Your task to perform on an android device: What's on the menu at Taco Bell? Image 0: 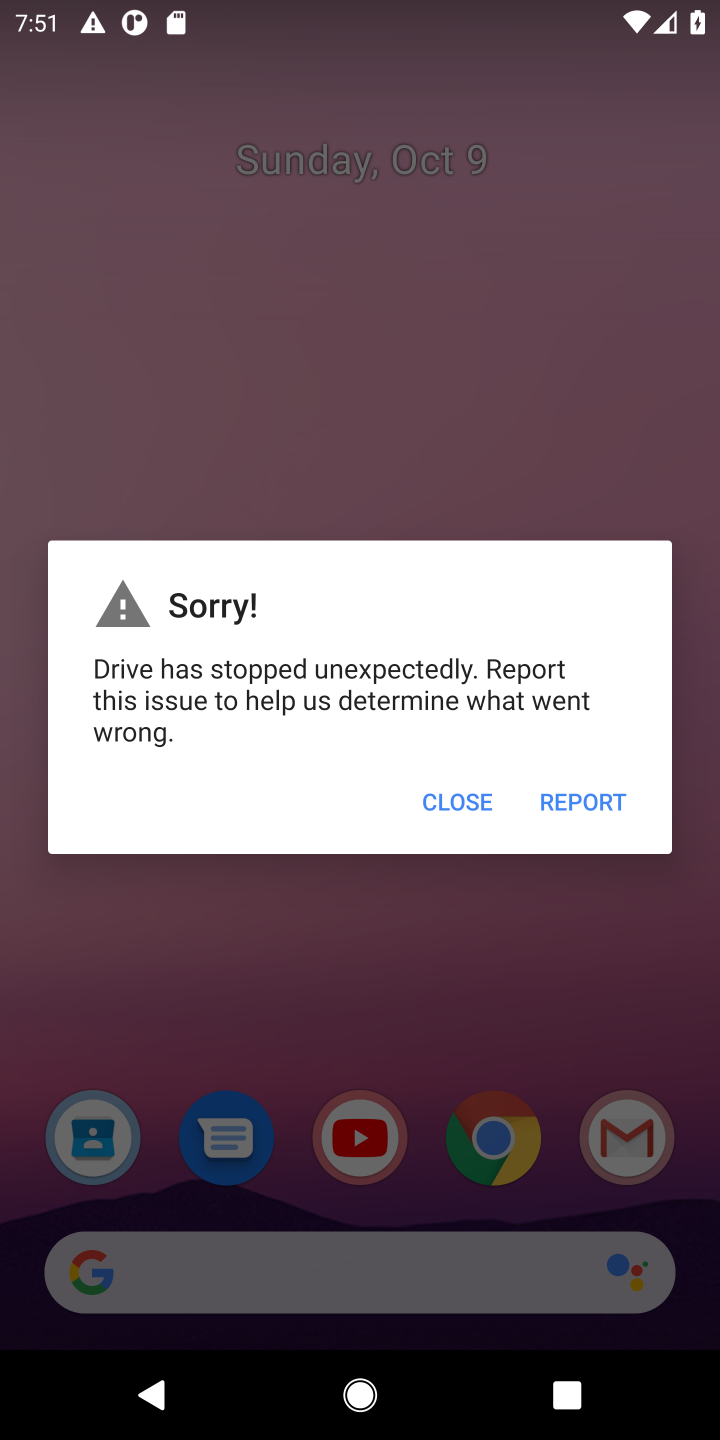
Step 0: press home button
Your task to perform on an android device: What's on the menu at Taco Bell? Image 1: 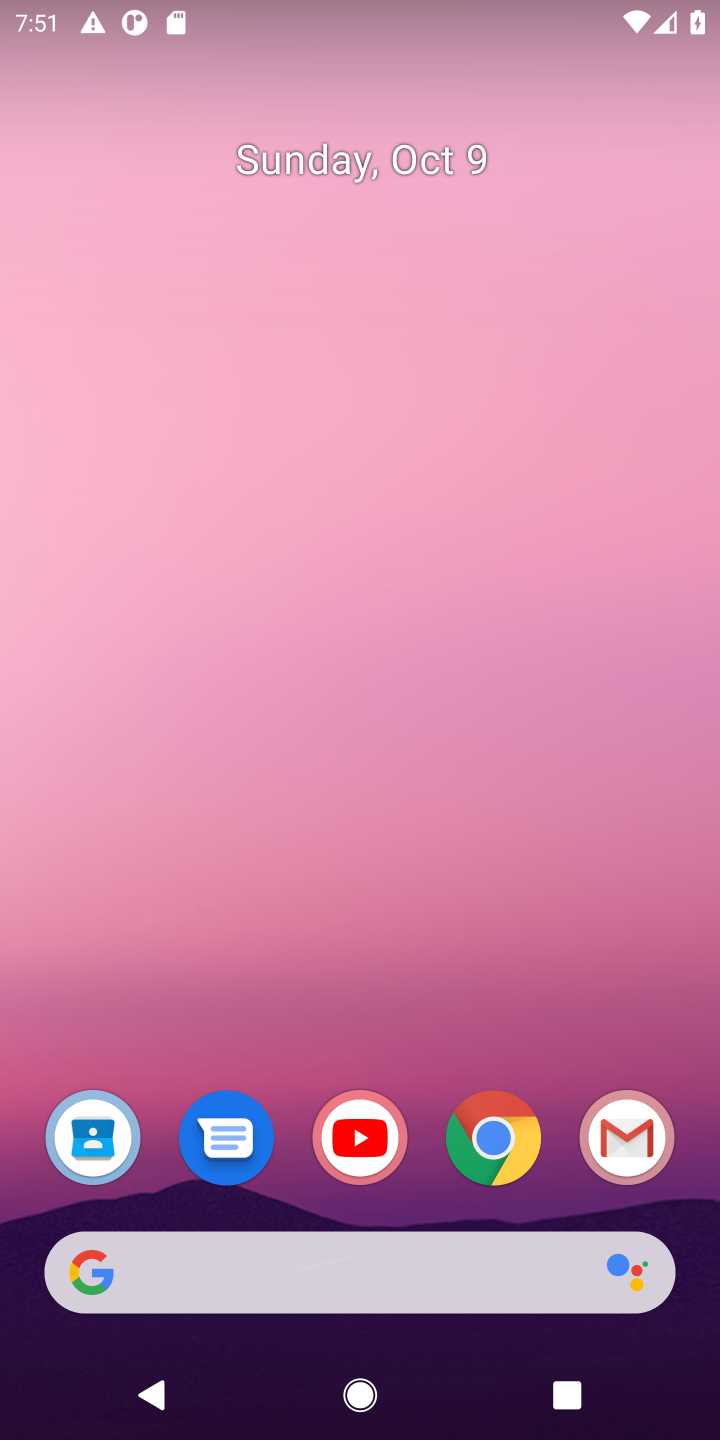
Step 1: drag from (269, 1146) to (242, 565)
Your task to perform on an android device: What's on the menu at Taco Bell? Image 2: 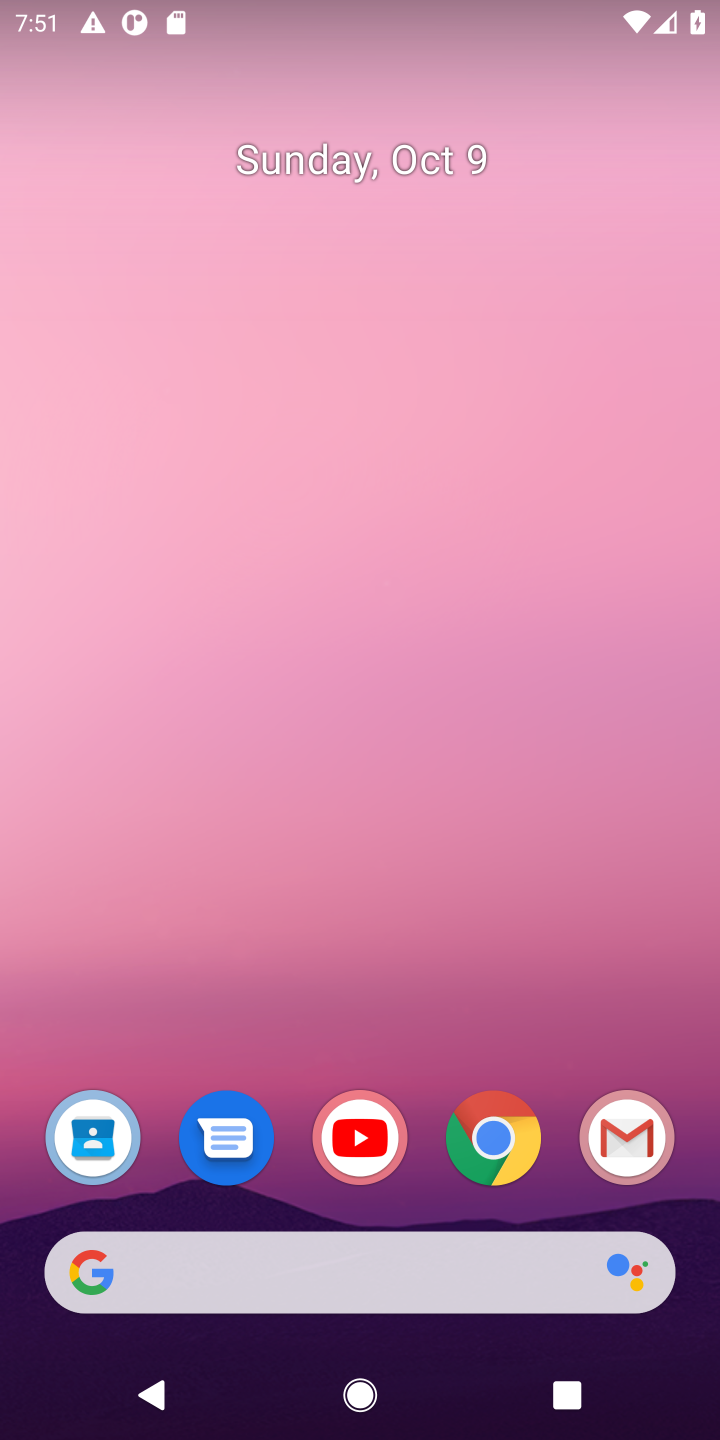
Step 2: drag from (289, 1245) to (298, 435)
Your task to perform on an android device: What's on the menu at Taco Bell? Image 3: 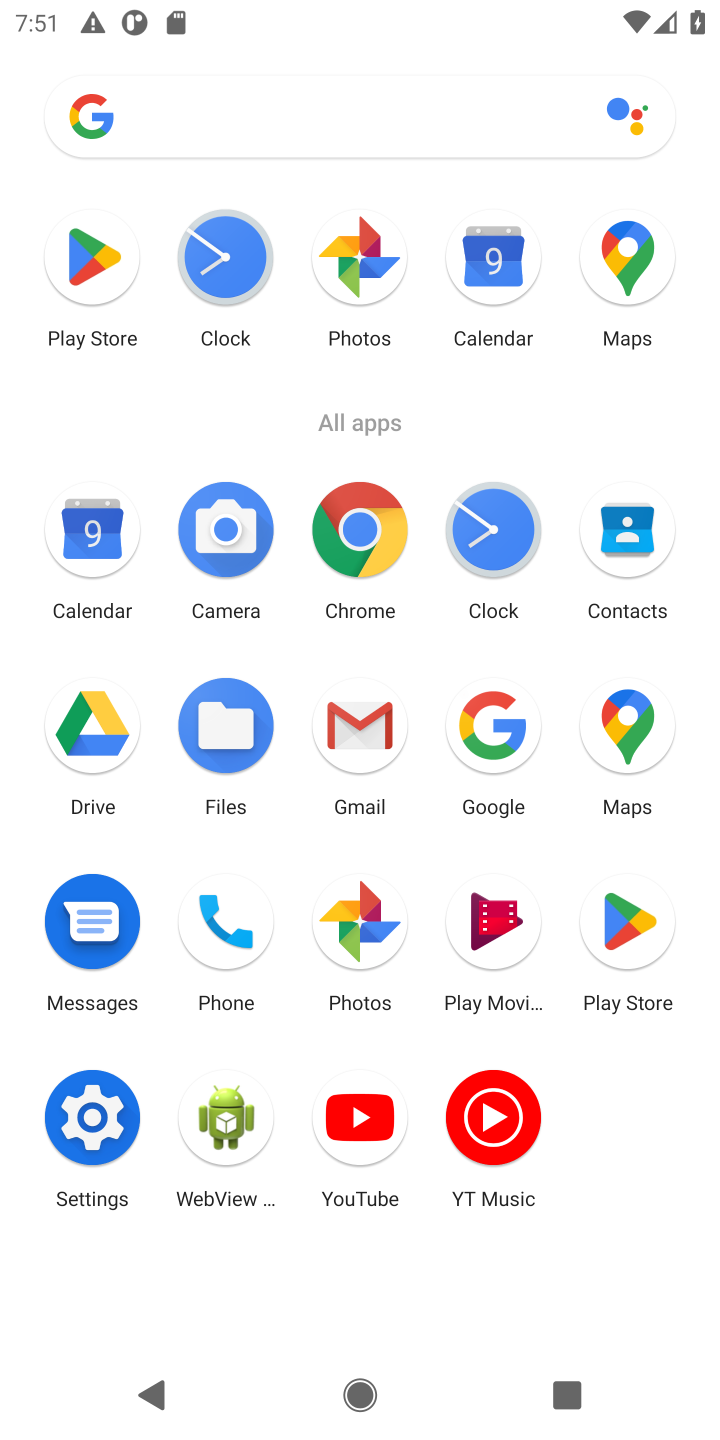
Step 3: click (497, 705)
Your task to perform on an android device: What's on the menu at Taco Bell? Image 4: 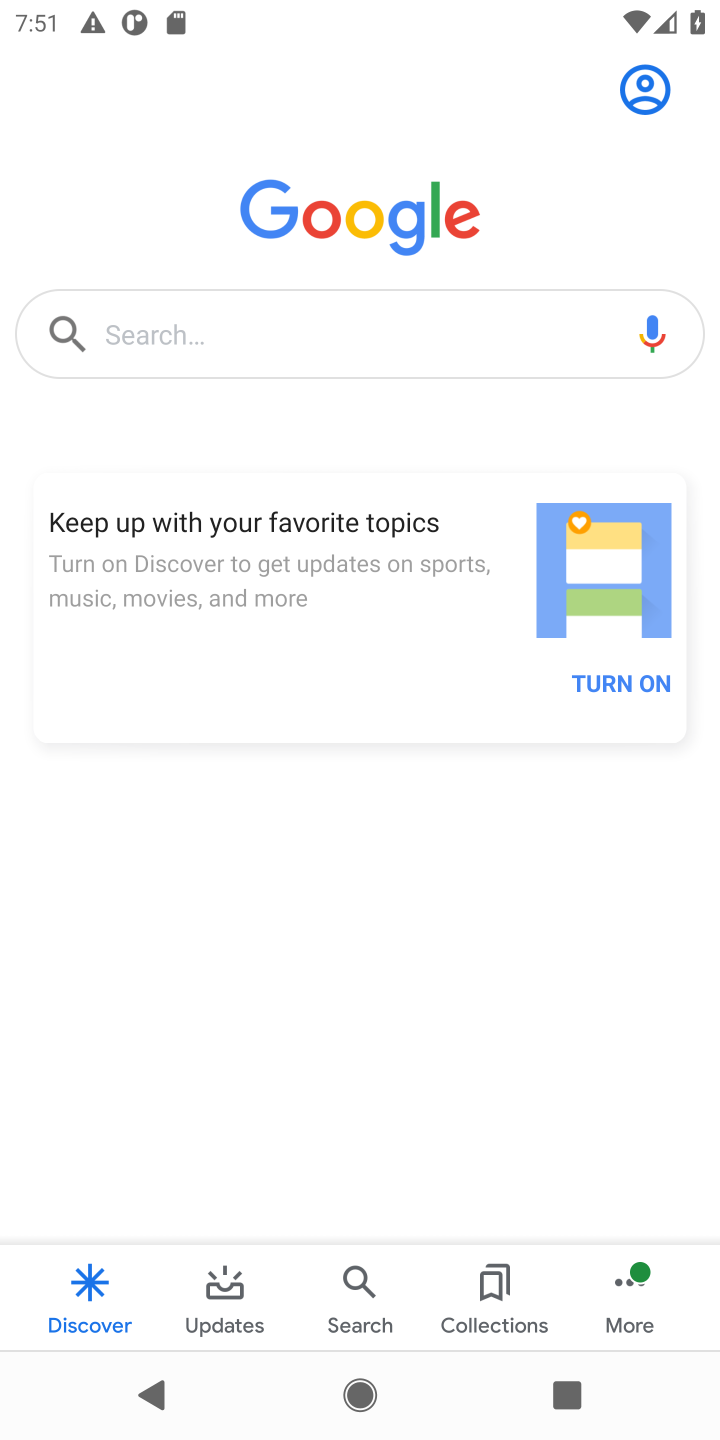
Step 4: click (322, 348)
Your task to perform on an android device: What's on the menu at Taco Bell? Image 5: 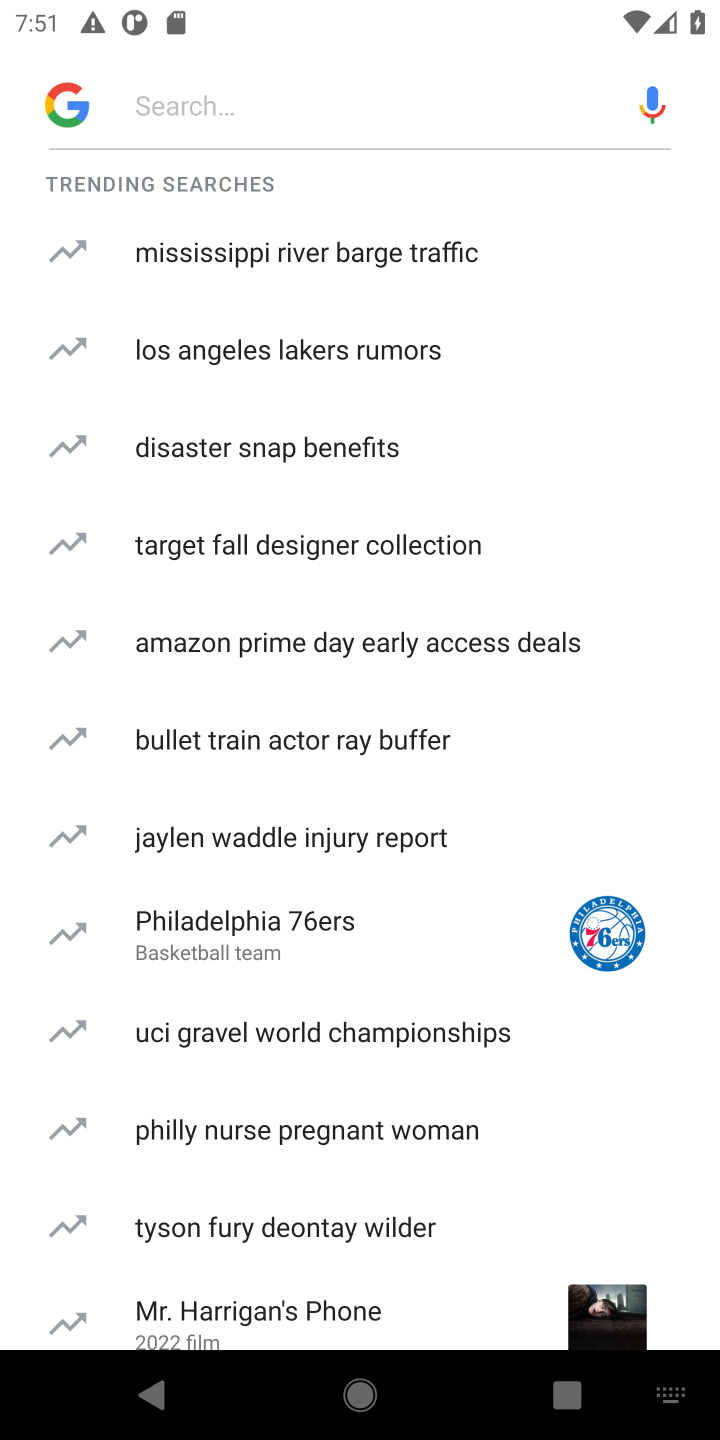
Step 5: type "What's on the menu at Taco Bell? "
Your task to perform on an android device: What's on the menu at Taco Bell? Image 6: 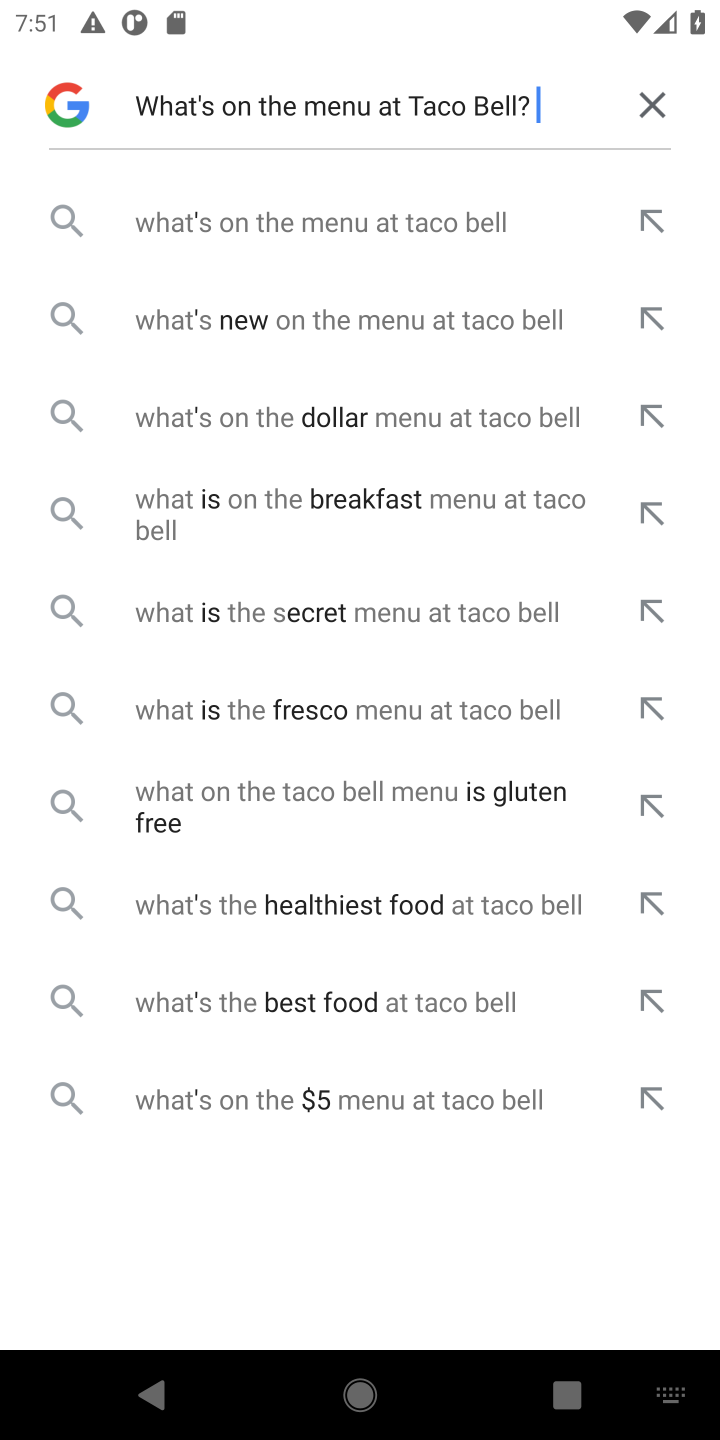
Step 6: click (416, 205)
Your task to perform on an android device: What's on the menu at Taco Bell? Image 7: 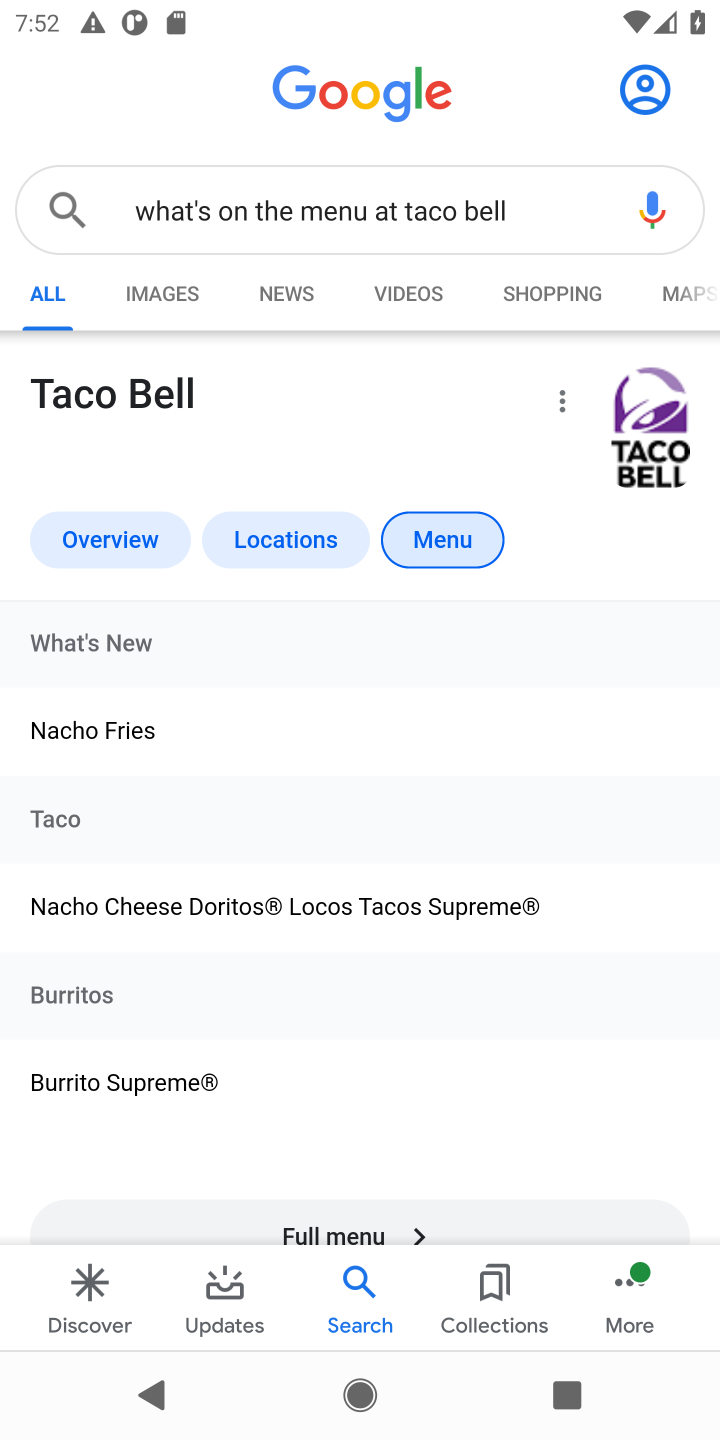
Step 7: drag from (426, 1087) to (407, 512)
Your task to perform on an android device: What's on the menu at Taco Bell? Image 8: 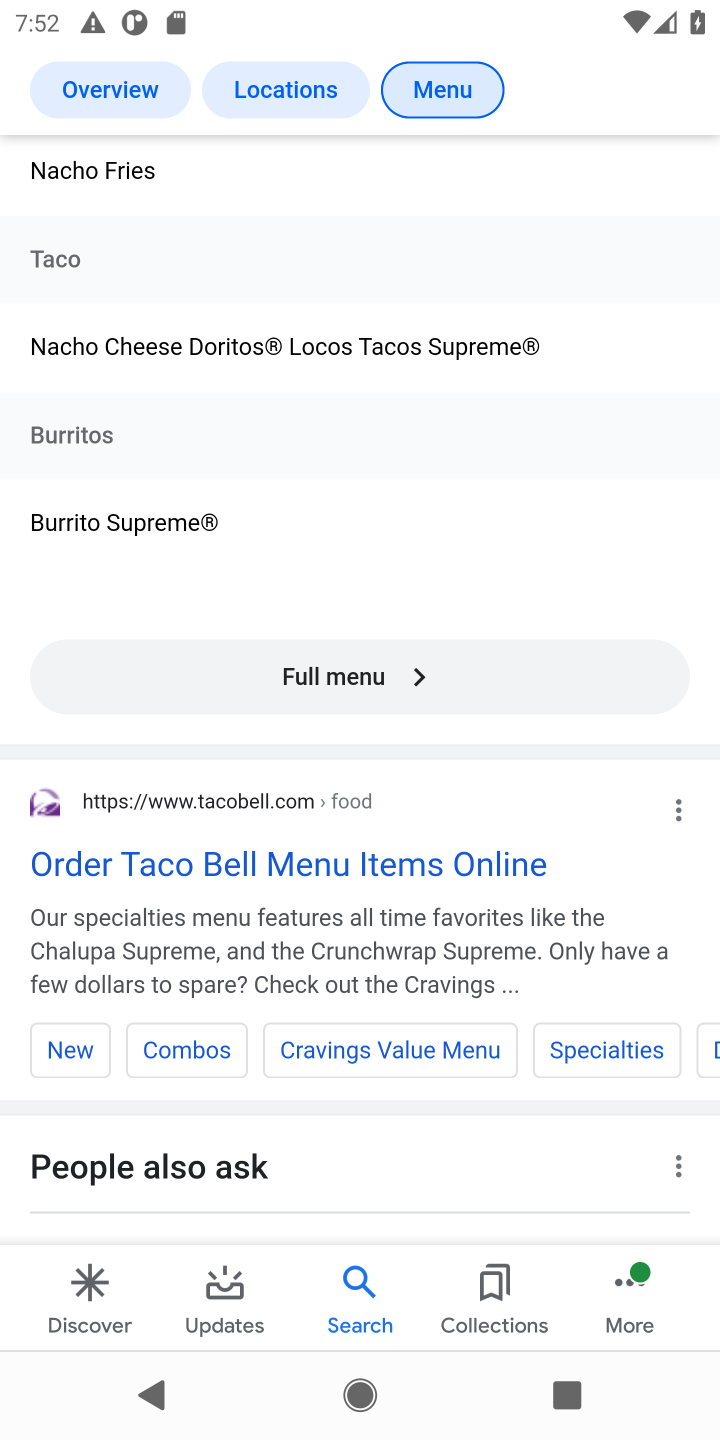
Step 8: click (290, 859)
Your task to perform on an android device: What's on the menu at Taco Bell? Image 9: 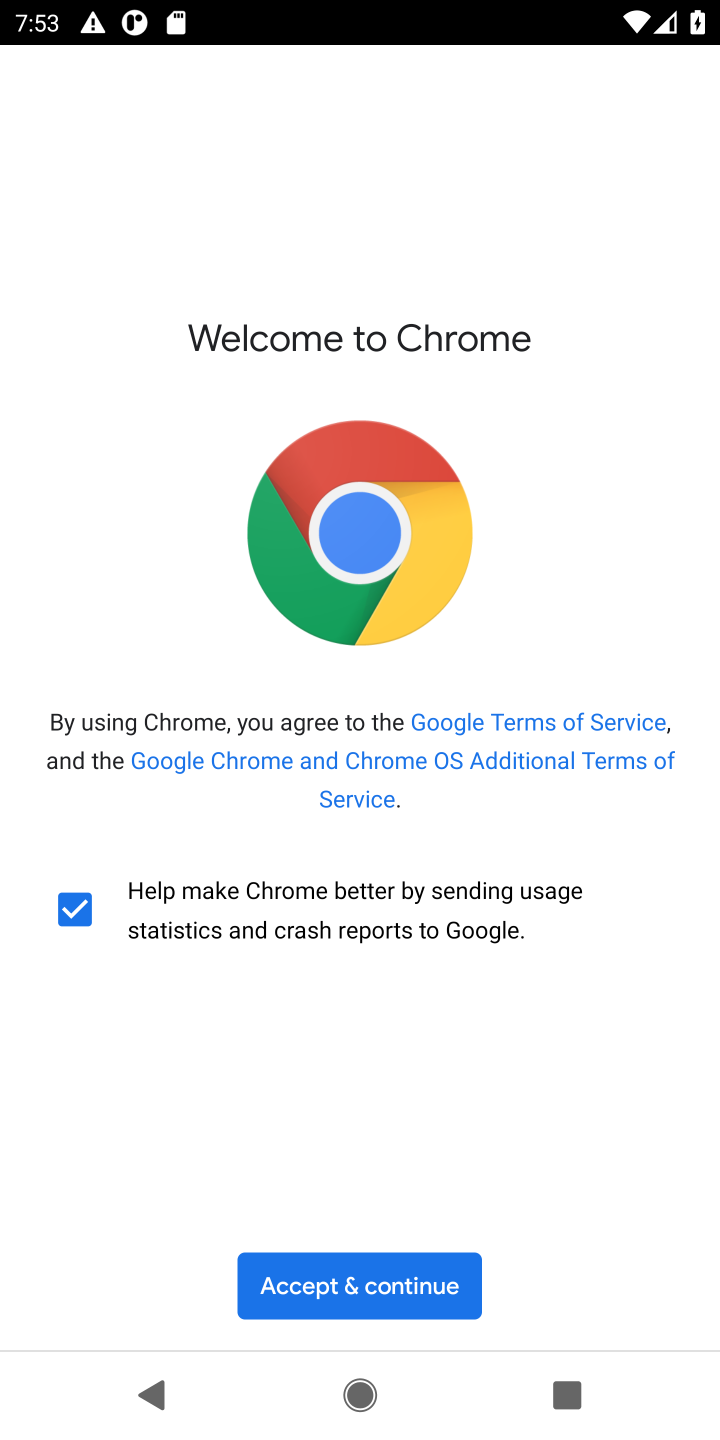
Step 9: click (323, 1282)
Your task to perform on an android device: What's on the menu at Taco Bell? Image 10: 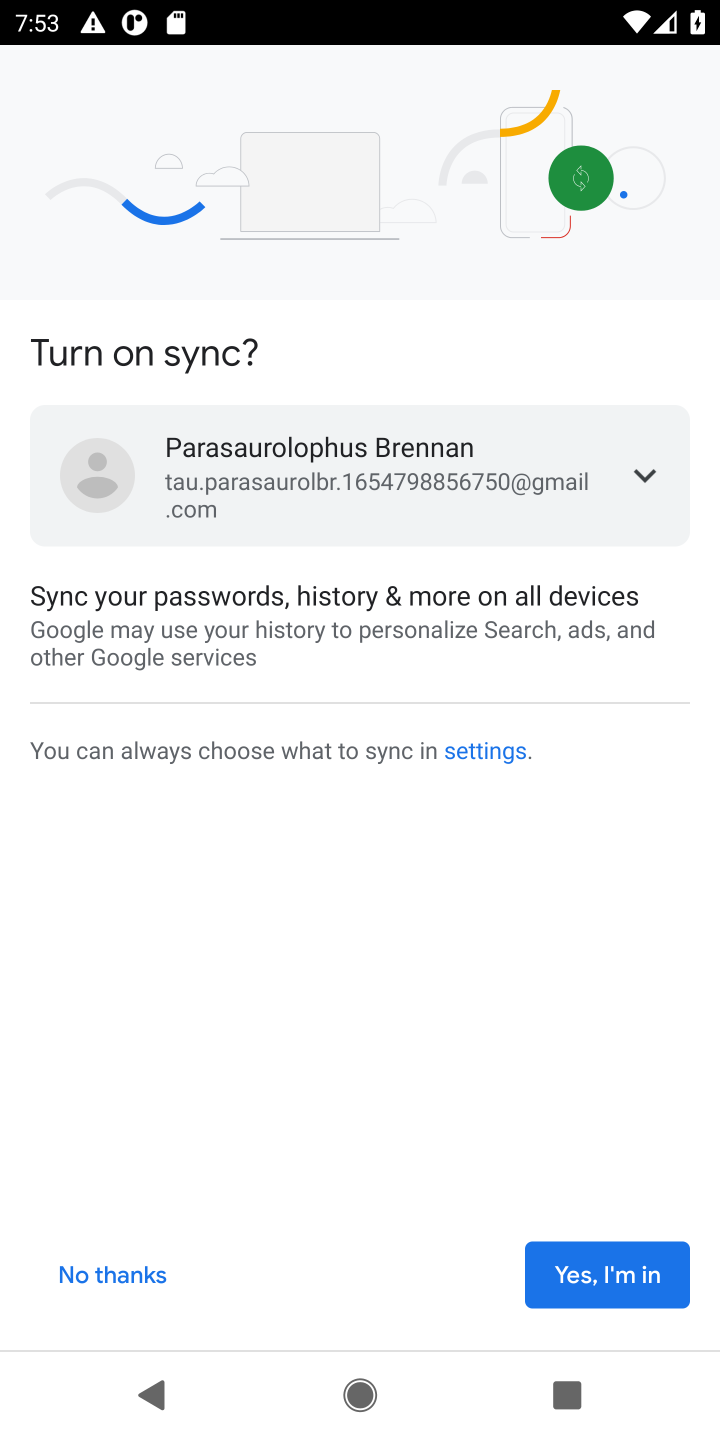
Step 10: click (149, 1286)
Your task to perform on an android device: What's on the menu at Taco Bell? Image 11: 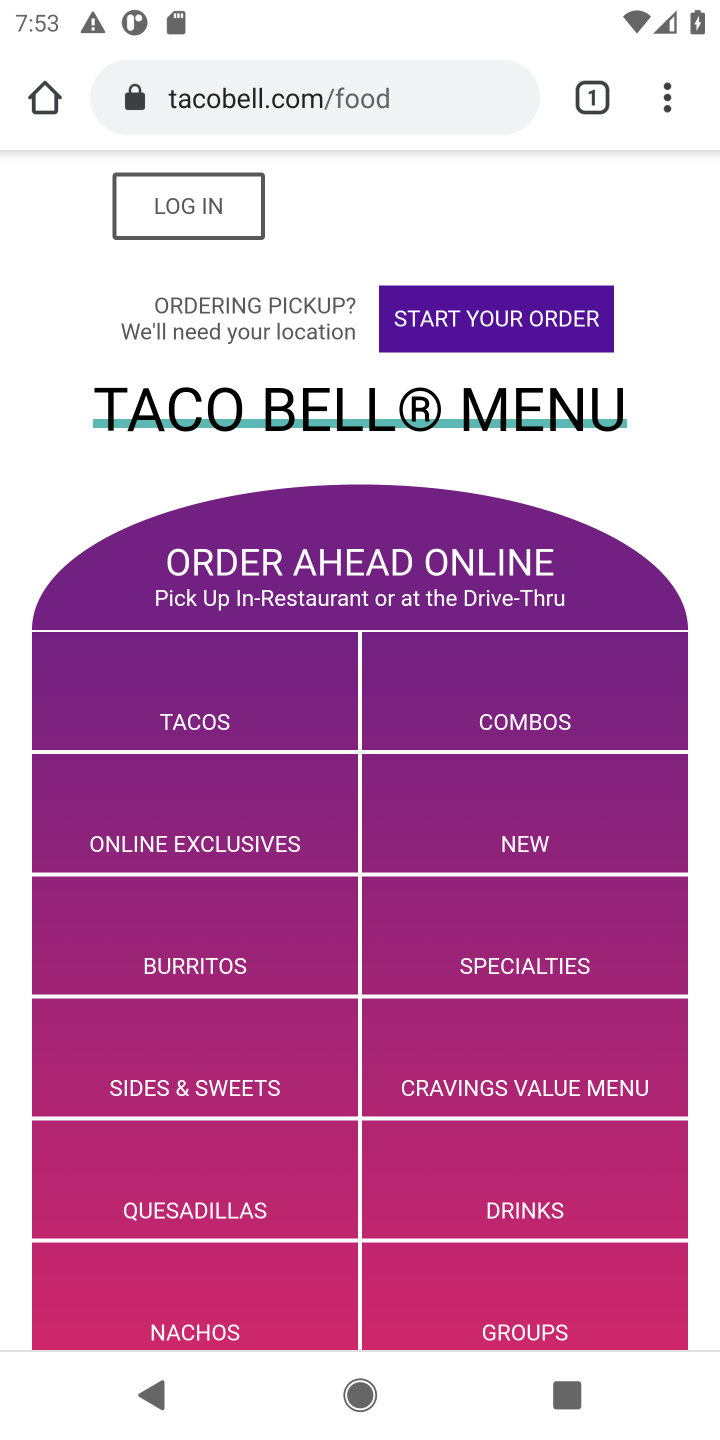
Step 11: task complete